Your task to perform on an android device: turn off wifi Image 0: 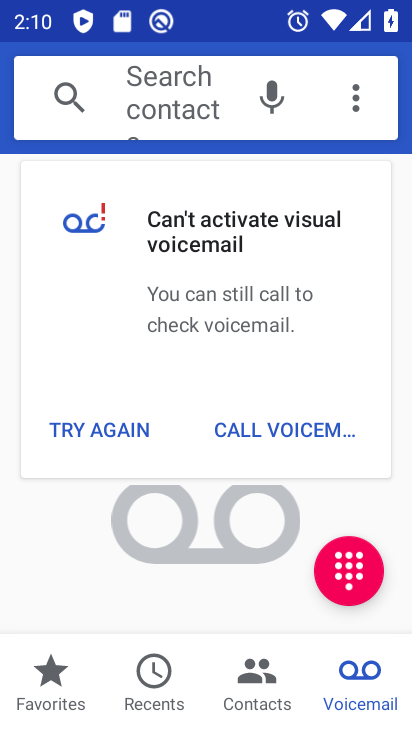
Step 0: press home button
Your task to perform on an android device: turn off wifi Image 1: 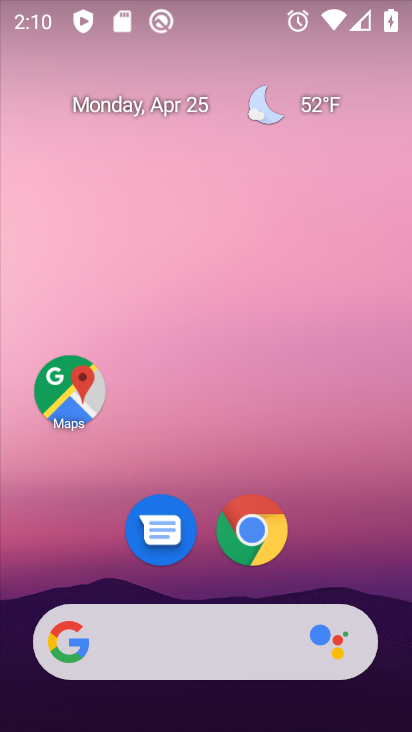
Step 1: drag from (320, 537) to (351, 79)
Your task to perform on an android device: turn off wifi Image 2: 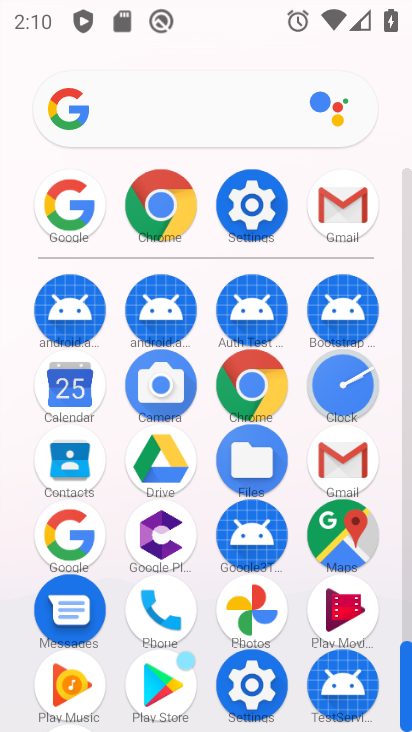
Step 2: click (257, 227)
Your task to perform on an android device: turn off wifi Image 3: 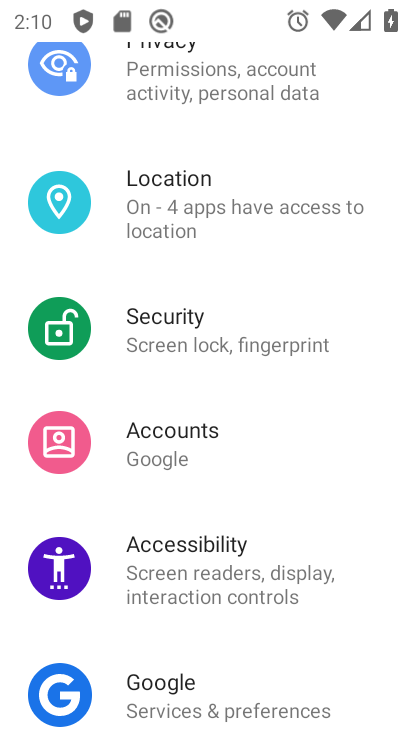
Step 3: drag from (263, 225) to (251, 531)
Your task to perform on an android device: turn off wifi Image 4: 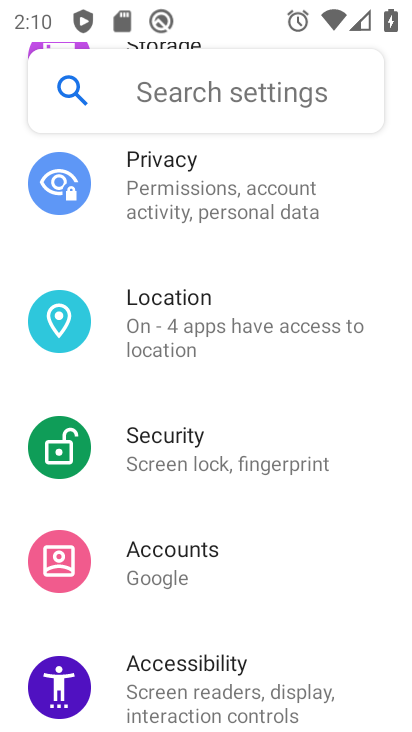
Step 4: drag from (258, 233) to (320, 610)
Your task to perform on an android device: turn off wifi Image 5: 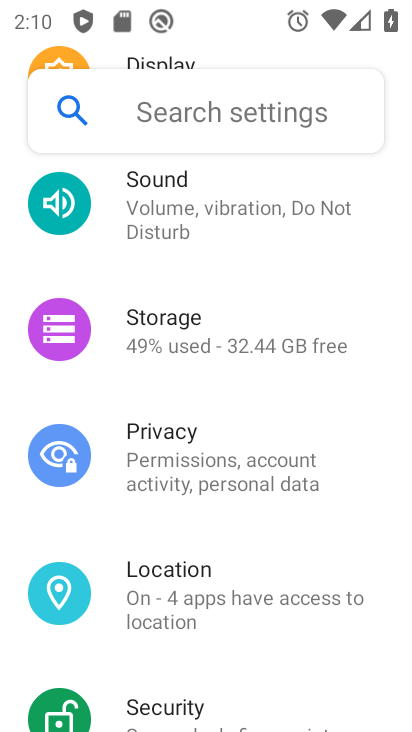
Step 5: drag from (266, 302) to (301, 685)
Your task to perform on an android device: turn off wifi Image 6: 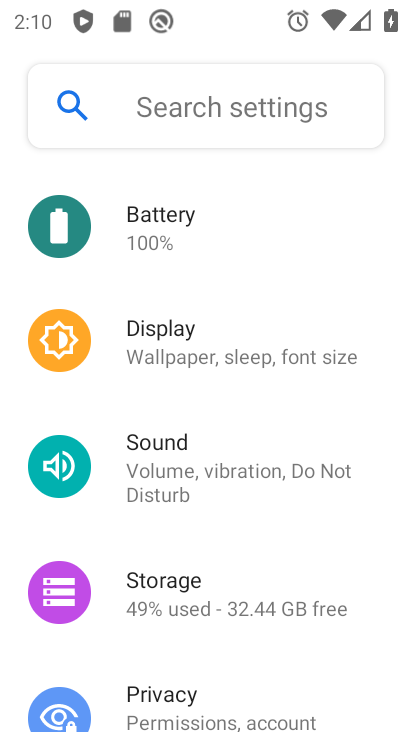
Step 6: drag from (271, 186) to (302, 662)
Your task to perform on an android device: turn off wifi Image 7: 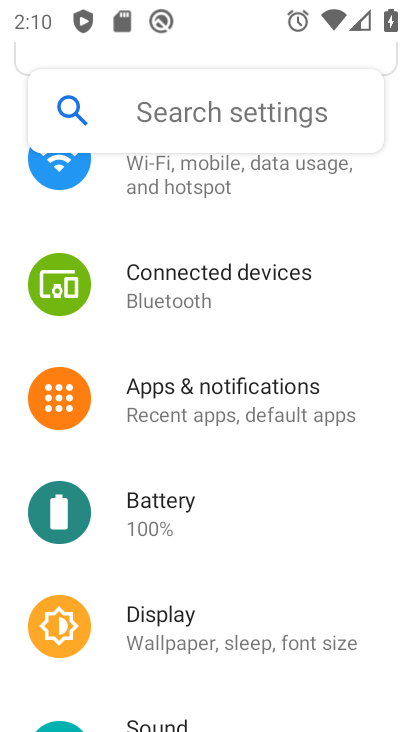
Step 7: drag from (265, 324) to (331, 722)
Your task to perform on an android device: turn off wifi Image 8: 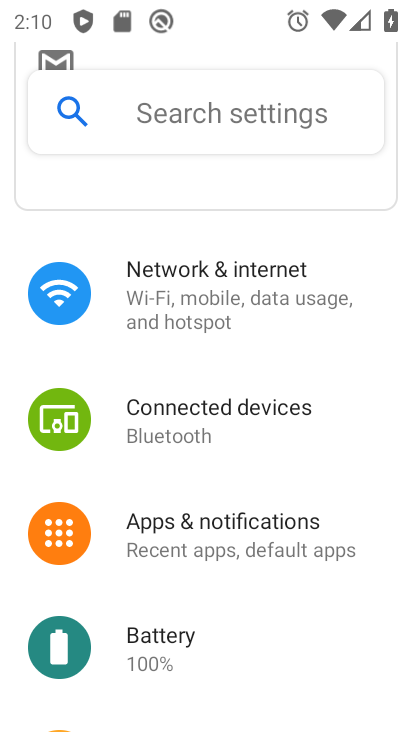
Step 8: click (209, 279)
Your task to perform on an android device: turn off wifi Image 9: 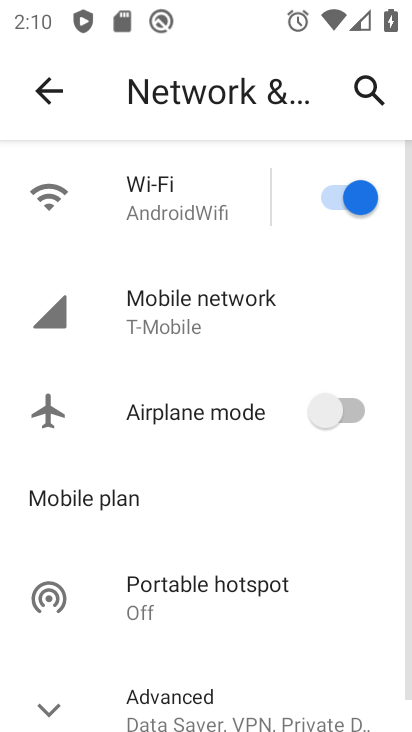
Step 9: click (350, 191)
Your task to perform on an android device: turn off wifi Image 10: 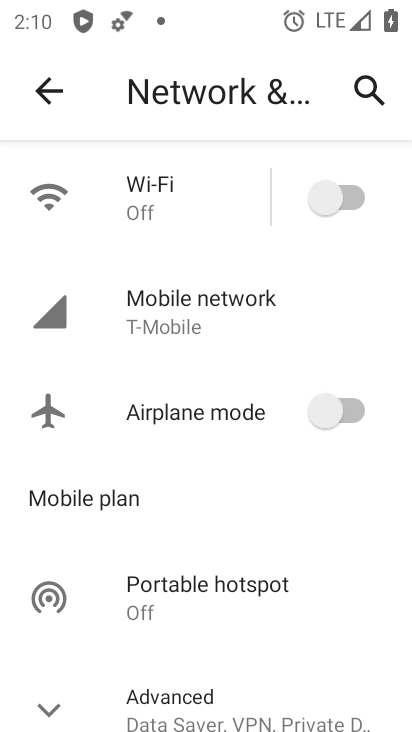
Step 10: task complete